Your task to perform on an android device: turn off priority inbox in the gmail app Image 0: 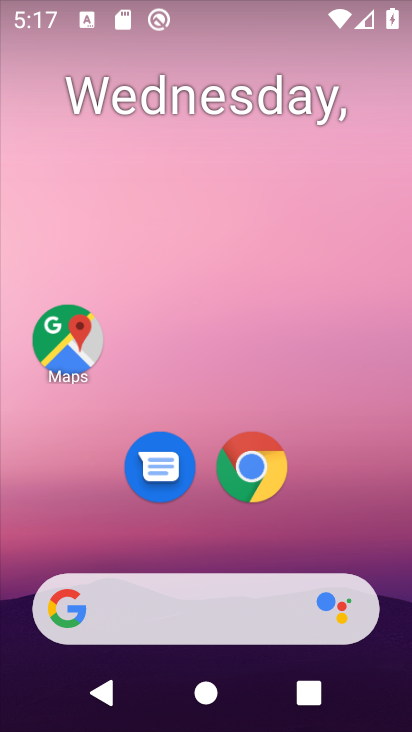
Step 0: drag from (288, 457) to (139, 98)
Your task to perform on an android device: turn off priority inbox in the gmail app Image 1: 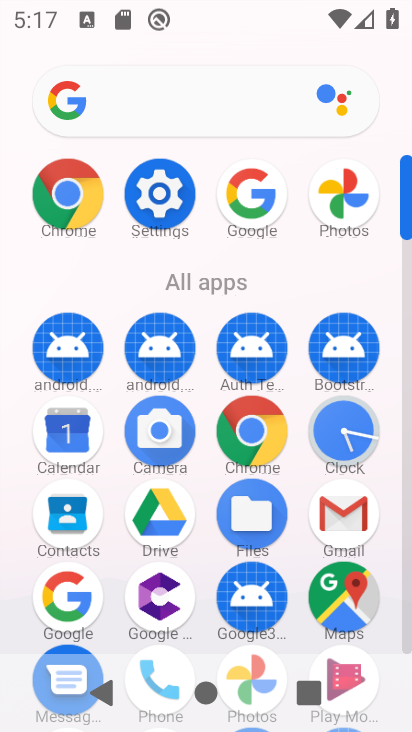
Step 1: click (346, 516)
Your task to perform on an android device: turn off priority inbox in the gmail app Image 2: 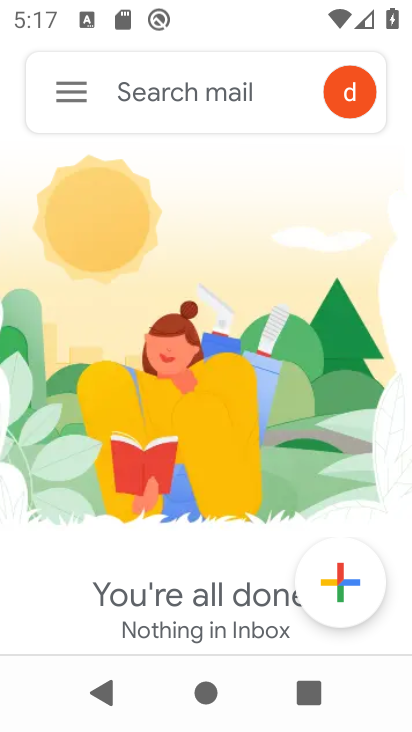
Step 2: click (71, 94)
Your task to perform on an android device: turn off priority inbox in the gmail app Image 3: 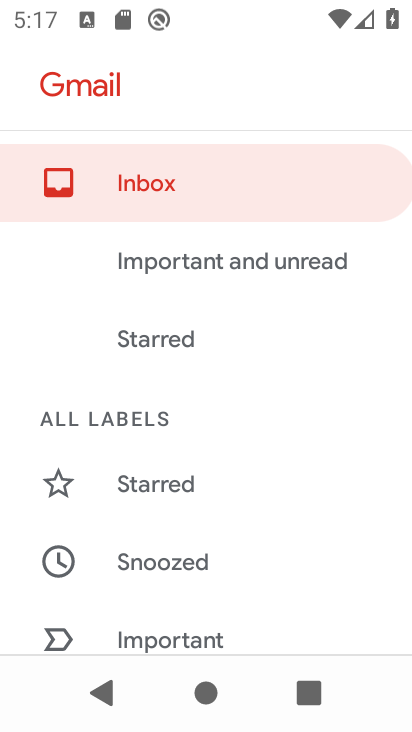
Step 3: drag from (305, 546) to (158, 101)
Your task to perform on an android device: turn off priority inbox in the gmail app Image 4: 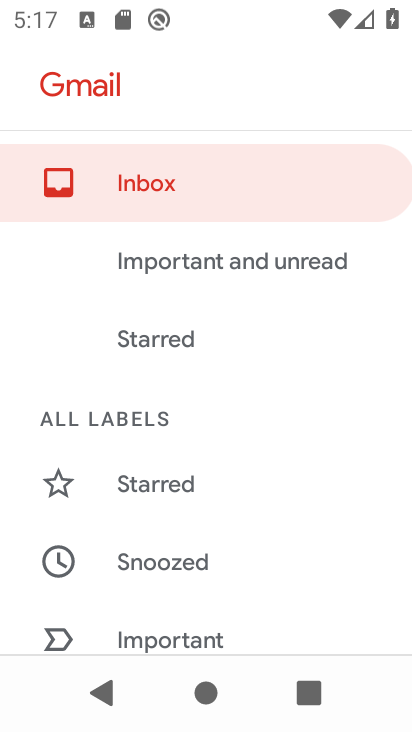
Step 4: drag from (196, 561) to (189, 72)
Your task to perform on an android device: turn off priority inbox in the gmail app Image 5: 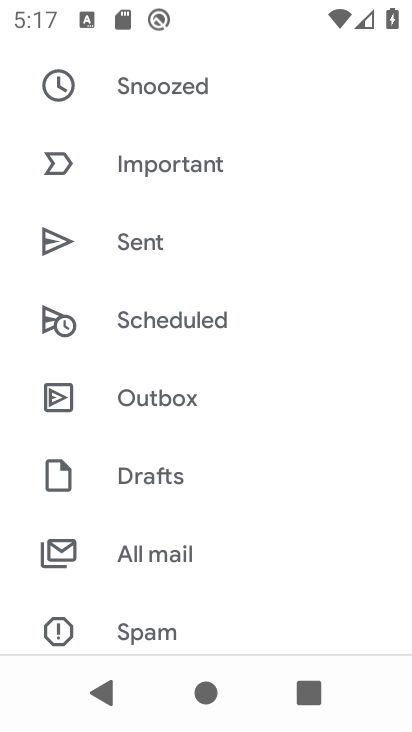
Step 5: drag from (178, 548) to (167, 169)
Your task to perform on an android device: turn off priority inbox in the gmail app Image 6: 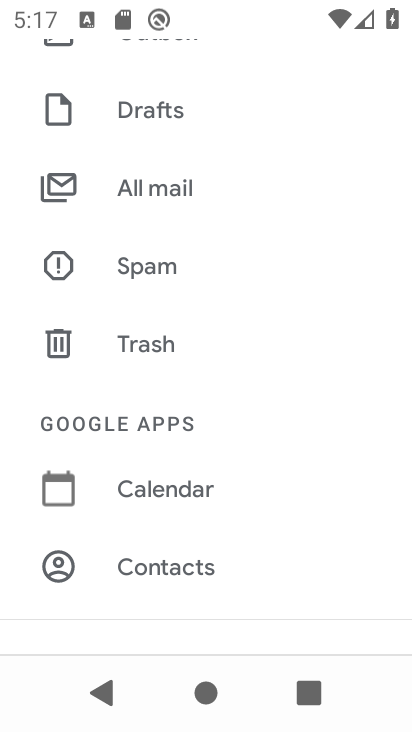
Step 6: drag from (215, 508) to (183, 163)
Your task to perform on an android device: turn off priority inbox in the gmail app Image 7: 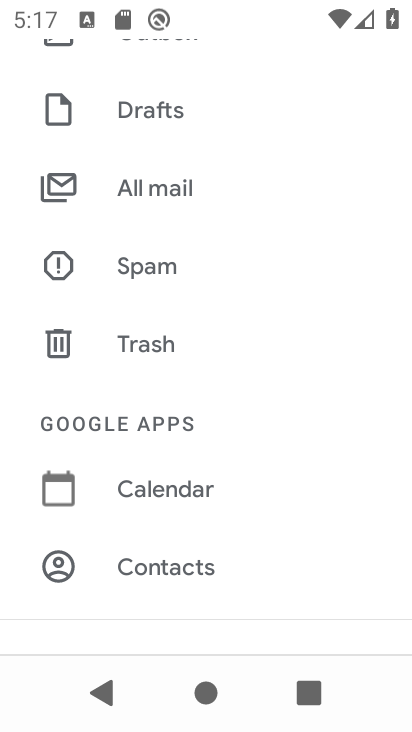
Step 7: drag from (211, 496) to (187, 170)
Your task to perform on an android device: turn off priority inbox in the gmail app Image 8: 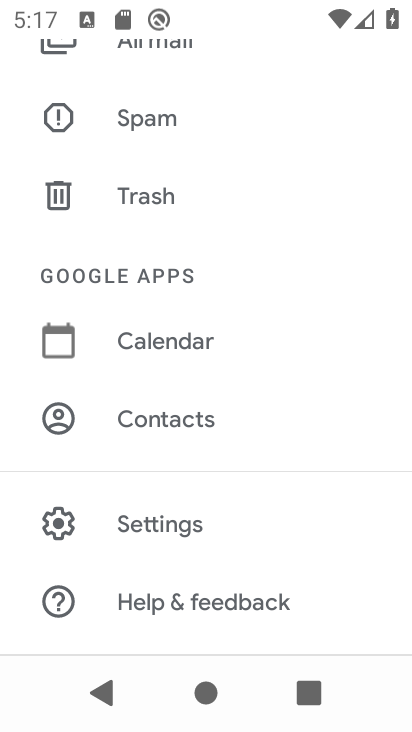
Step 8: click (196, 521)
Your task to perform on an android device: turn off priority inbox in the gmail app Image 9: 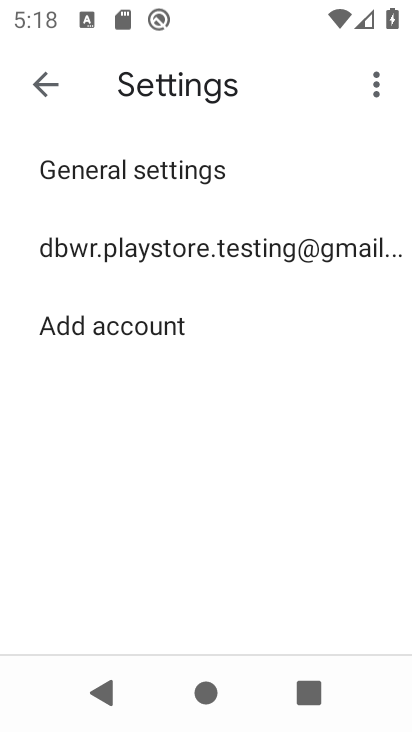
Step 9: click (193, 255)
Your task to perform on an android device: turn off priority inbox in the gmail app Image 10: 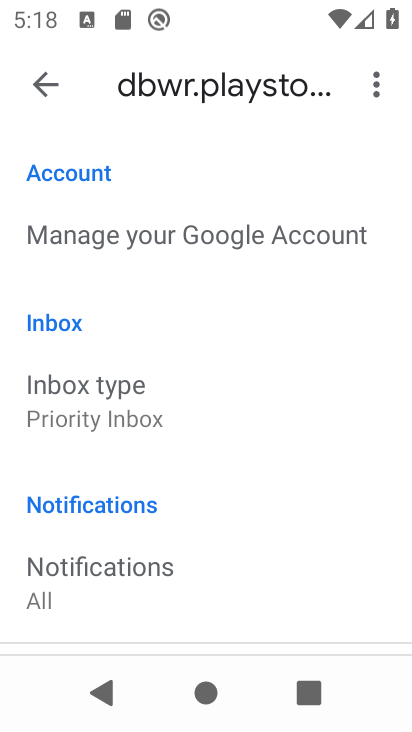
Step 10: click (181, 390)
Your task to perform on an android device: turn off priority inbox in the gmail app Image 11: 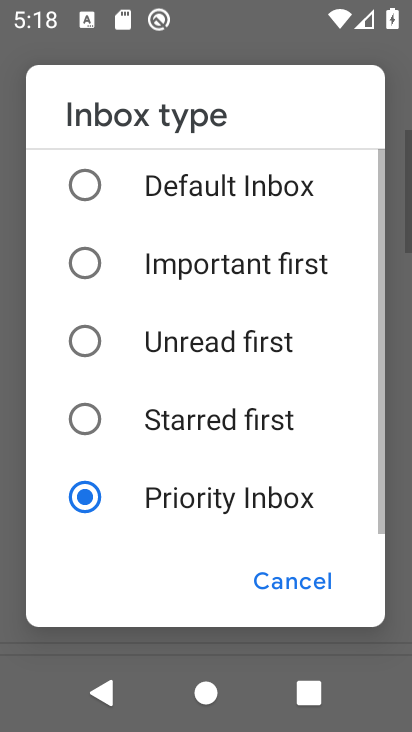
Step 11: click (232, 187)
Your task to perform on an android device: turn off priority inbox in the gmail app Image 12: 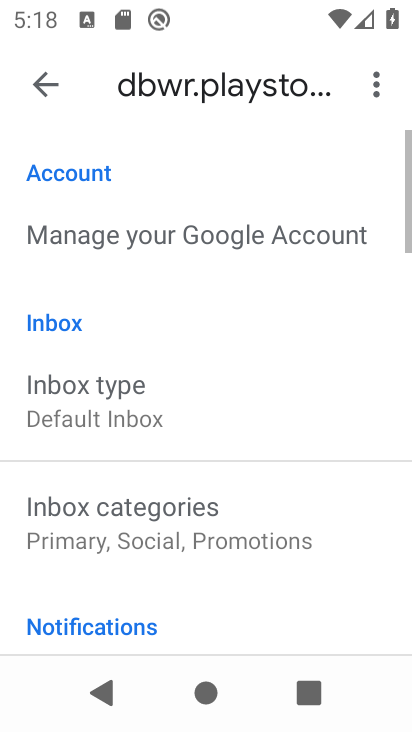
Step 12: task complete